Your task to perform on an android device: change notifications settings Image 0: 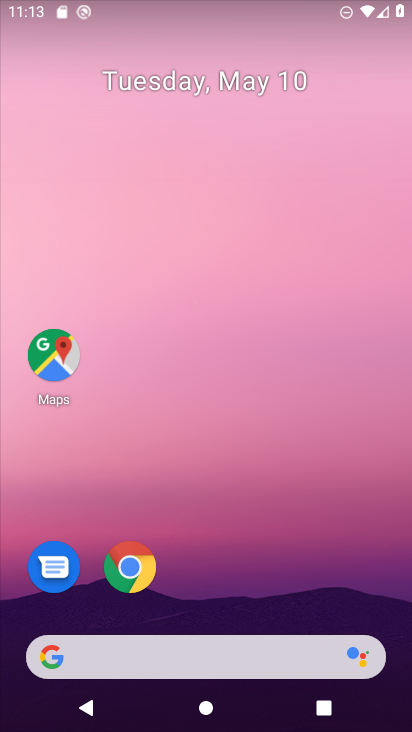
Step 0: drag from (265, 542) to (272, 58)
Your task to perform on an android device: change notifications settings Image 1: 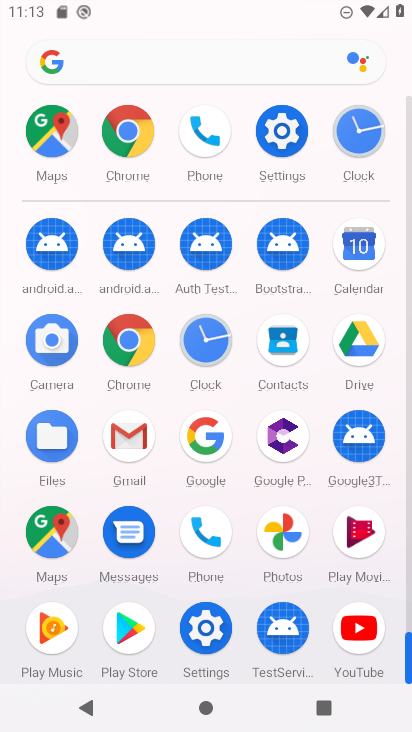
Step 1: click (275, 132)
Your task to perform on an android device: change notifications settings Image 2: 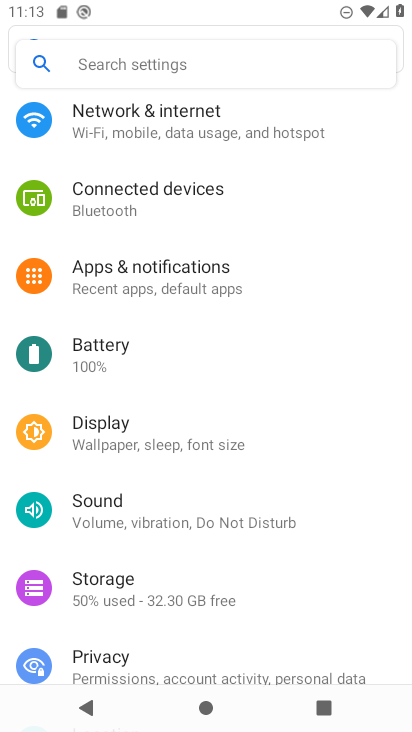
Step 2: click (196, 268)
Your task to perform on an android device: change notifications settings Image 3: 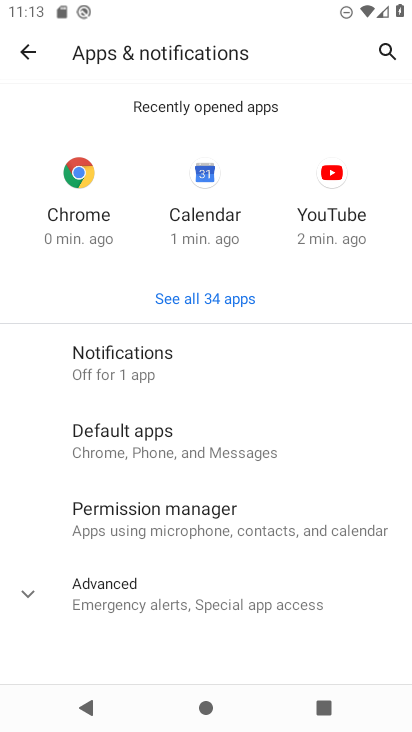
Step 3: click (218, 370)
Your task to perform on an android device: change notifications settings Image 4: 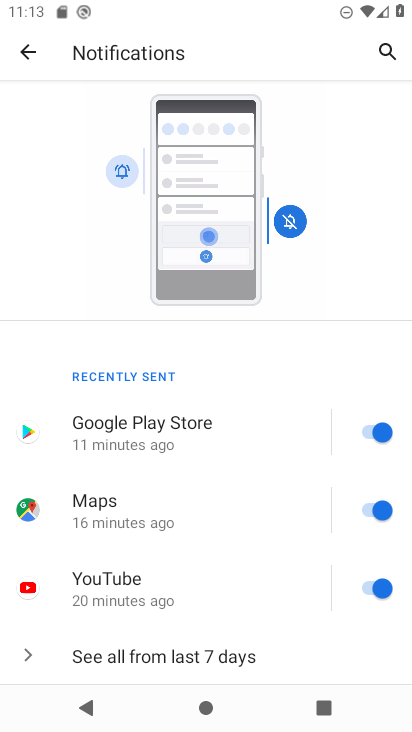
Step 4: drag from (169, 653) to (178, 347)
Your task to perform on an android device: change notifications settings Image 5: 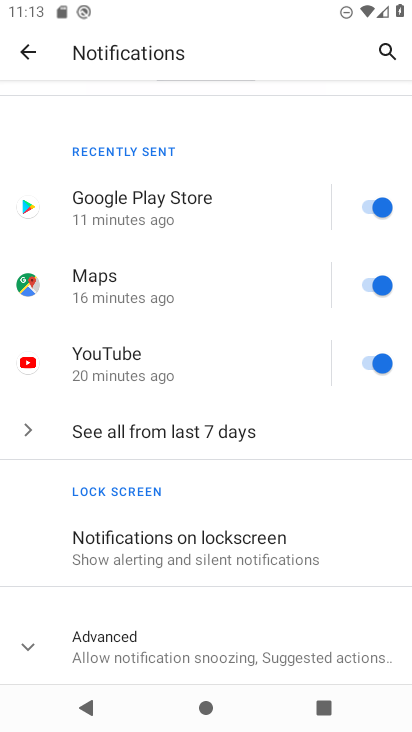
Step 5: drag from (202, 624) to (219, 373)
Your task to perform on an android device: change notifications settings Image 6: 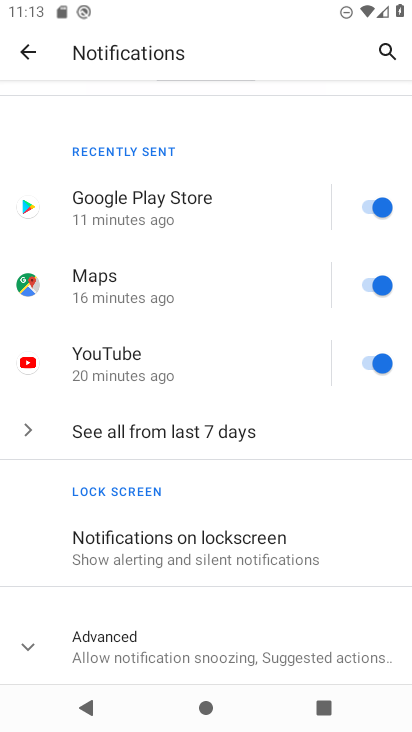
Step 6: click (22, 647)
Your task to perform on an android device: change notifications settings Image 7: 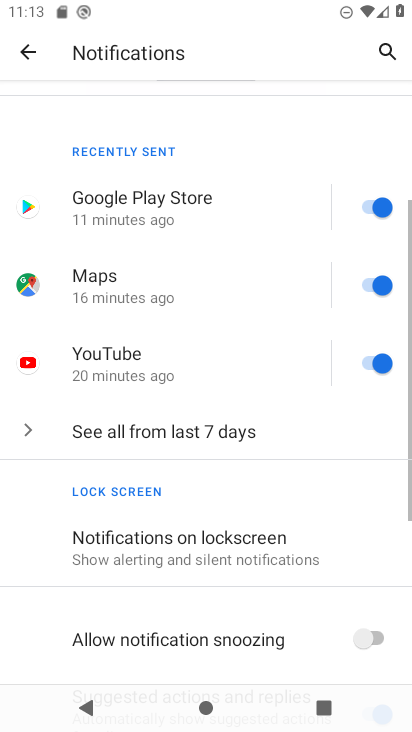
Step 7: task complete